Your task to perform on an android device: check battery use Image 0: 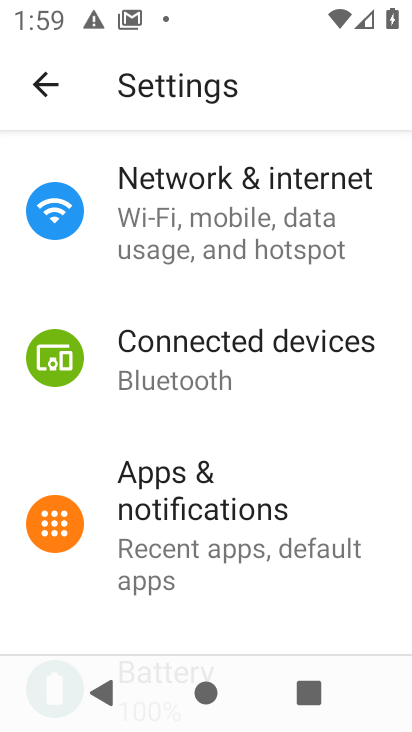
Step 0: press home button
Your task to perform on an android device: check battery use Image 1: 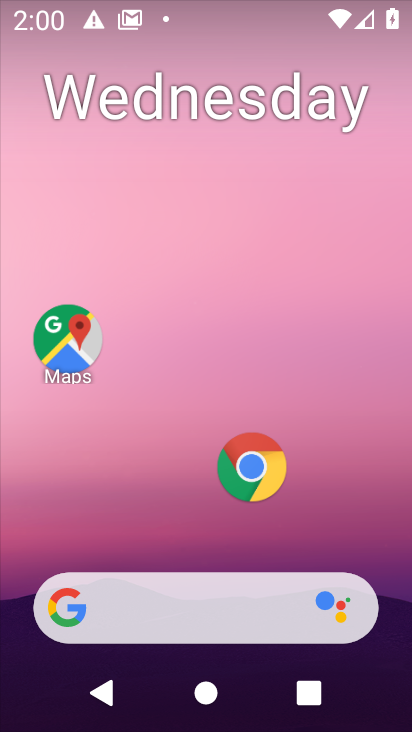
Step 1: task complete